Your task to perform on an android device: make emails show in primary in the gmail app Image 0: 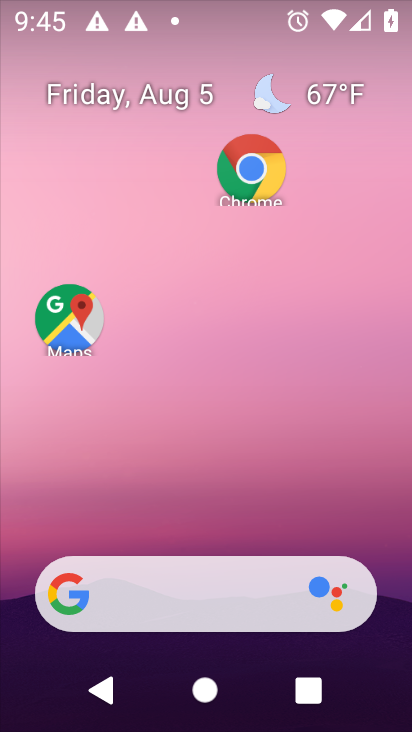
Step 0: drag from (199, 495) to (154, 115)
Your task to perform on an android device: make emails show in primary in the gmail app Image 1: 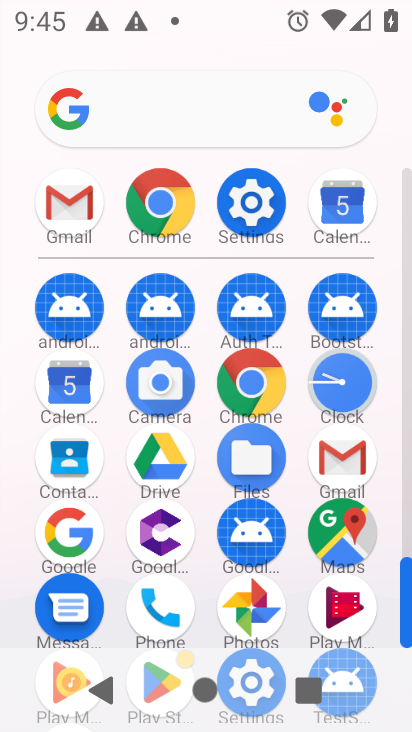
Step 1: click (82, 216)
Your task to perform on an android device: make emails show in primary in the gmail app Image 2: 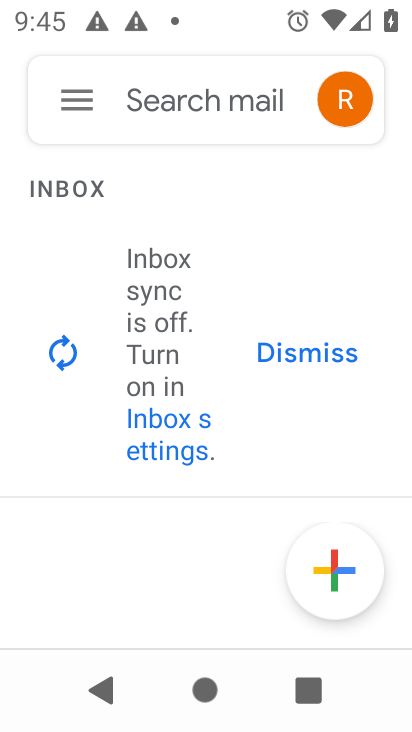
Step 2: click (97, 113)
Your task to perform on an android device: make emails show in primary in the gmail app Image 3: 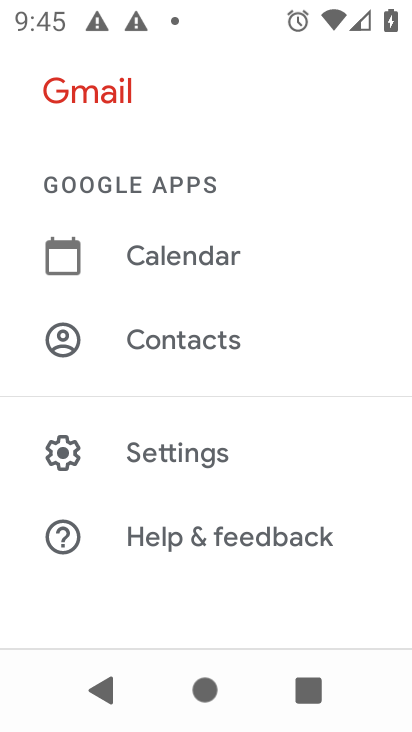
Step 3: click (165, 432)
Your task to perform on an android device: make emails show in primary in the gmail app Image 4: 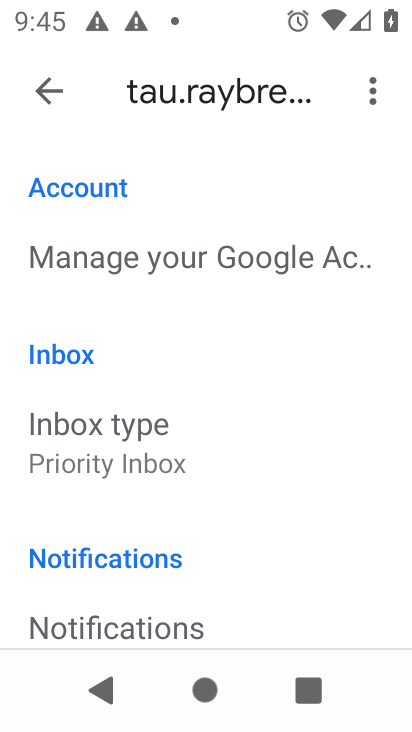
Step 4: click (146, 473)
Your task to perform on an android device: make emails show in primary in the gmail app Image 5: 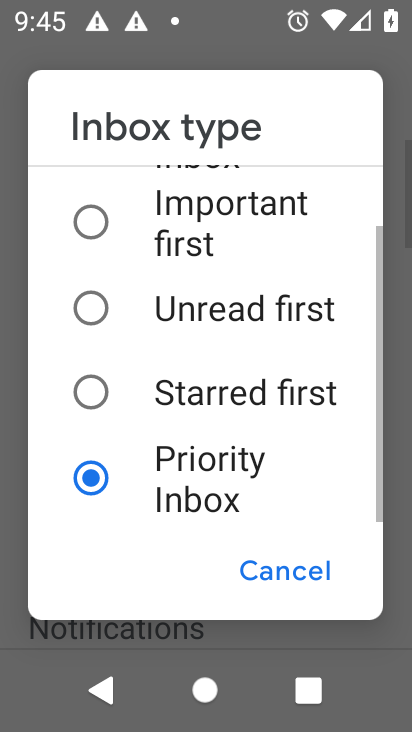
Step 5: drag from (183, 219) to (190, 438)
Your task to perform on an android device: make emails show in primary in the gmail app Image 6: 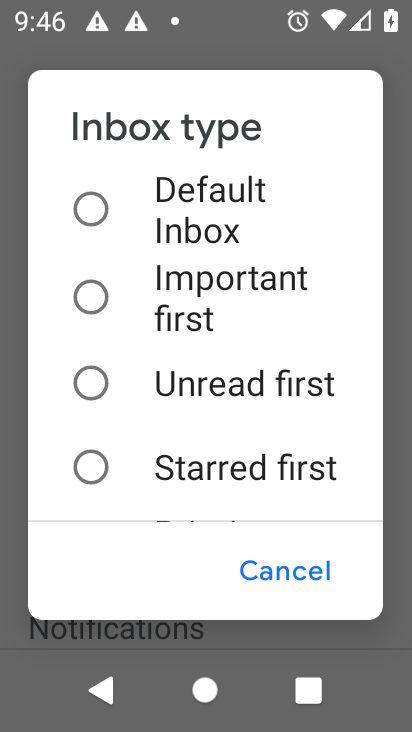
Step 6: click (94, 217)
Your task to perform on an android device: make emails show in primary in the gmail app Image 7: 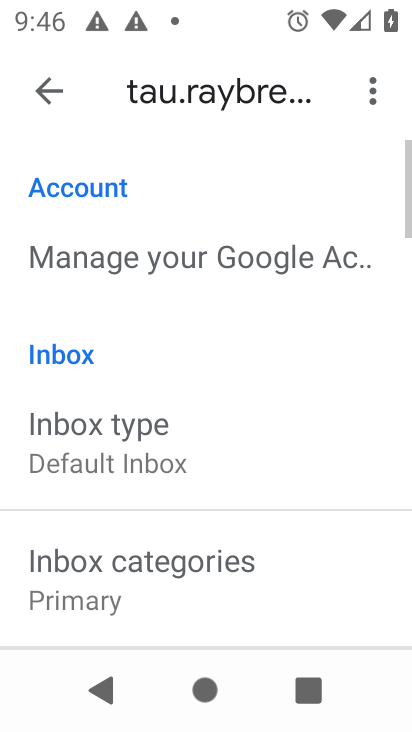
Step 7: task complete